Your task to perform on an android device: turn on notifications settings in the gmail app Image 0: 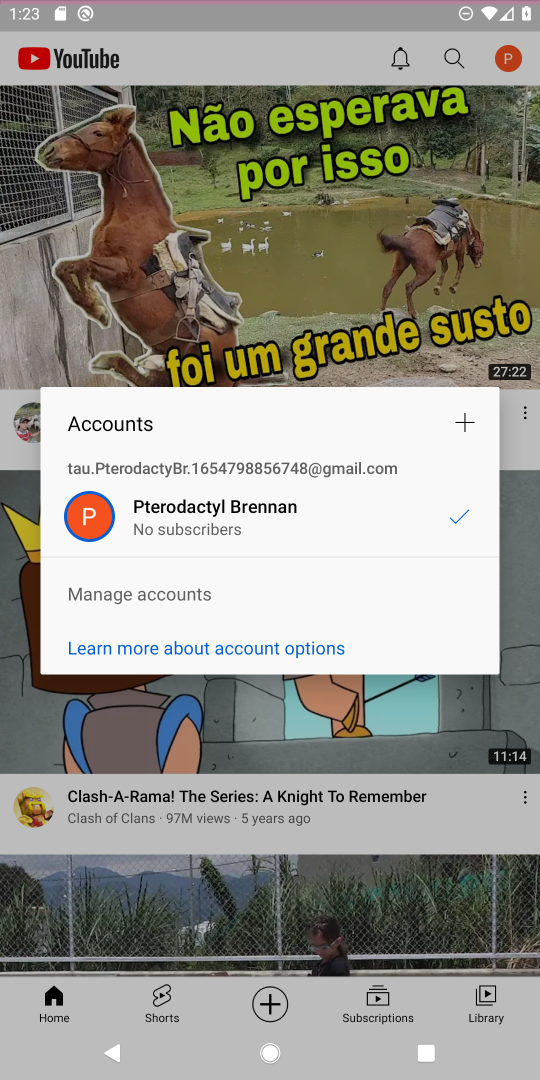
Step 0: press home button
Your task to perform on an android device: turn on notifications settings in the gmail app Image 1: 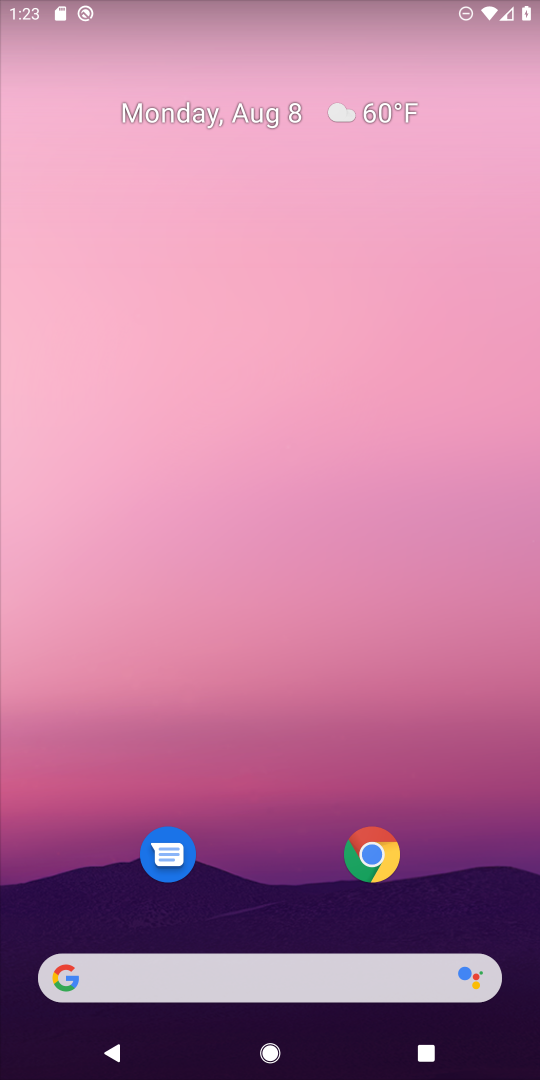
Step 1: drag from (286, 886) to (287, 79)
Your task to perform on an android device: turn on notifications settings in the gmail app Image 2: 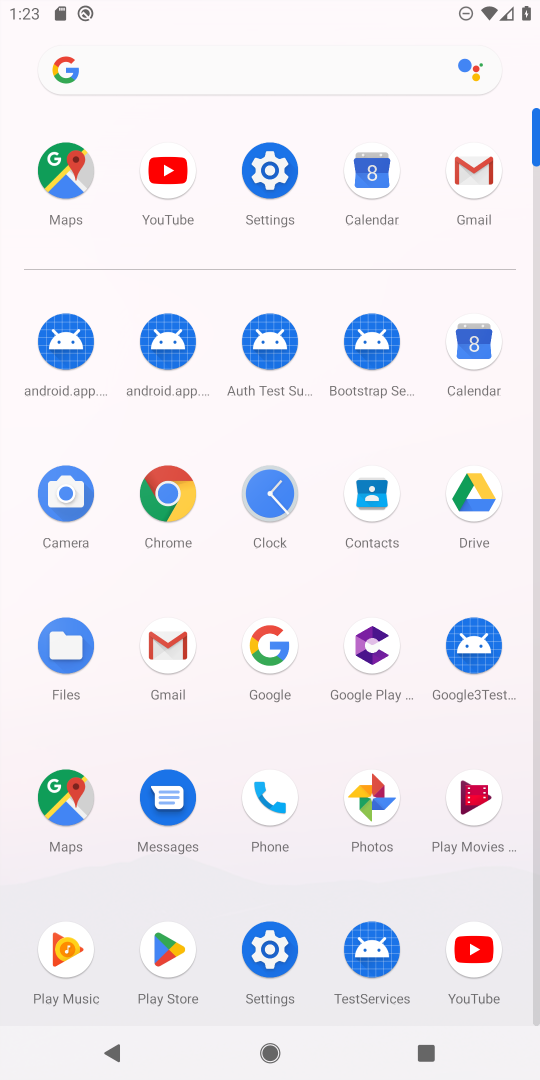
Step 2: click (474, 178)
Your task to perform on an android device: turn on notifications settings in the gmail app Image 3: 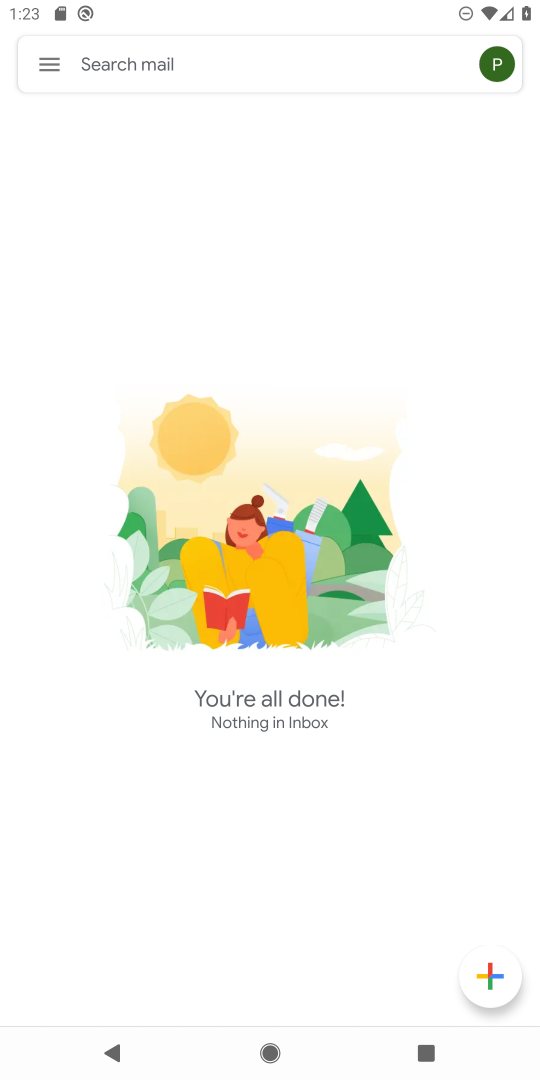
Step 3: click (48, 63)
Your task to perform on an android device: turn on notifications settings in the gmail app Image 4: 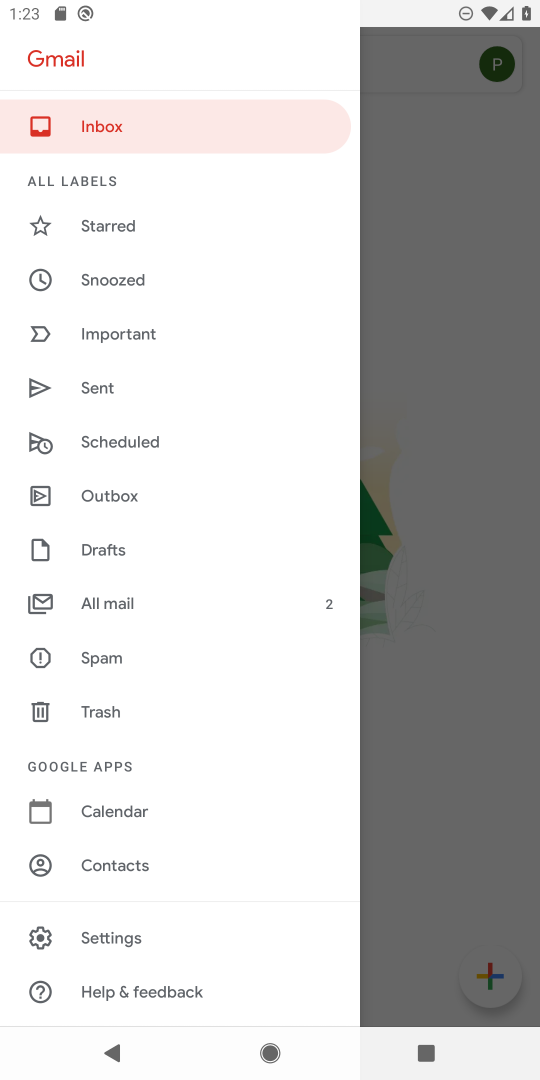
Step 4: click (101, 927)
Your task to perform on an android device: turn on notifications settings in the gmail app Image 5: 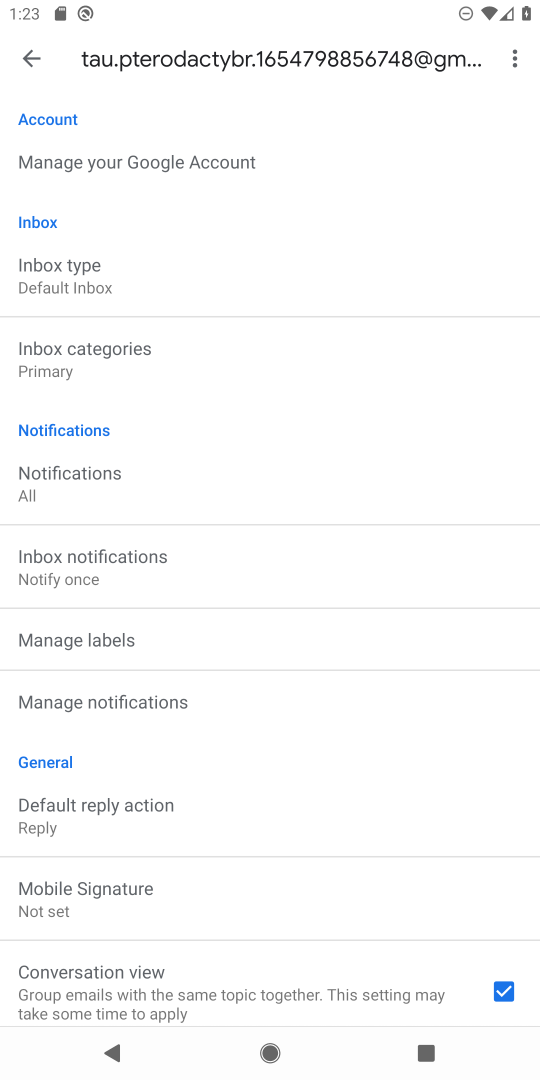
Step 5: click (83, 686)
Your task to perform on an android device: turn on notifications settings in the gmail app Image 6: 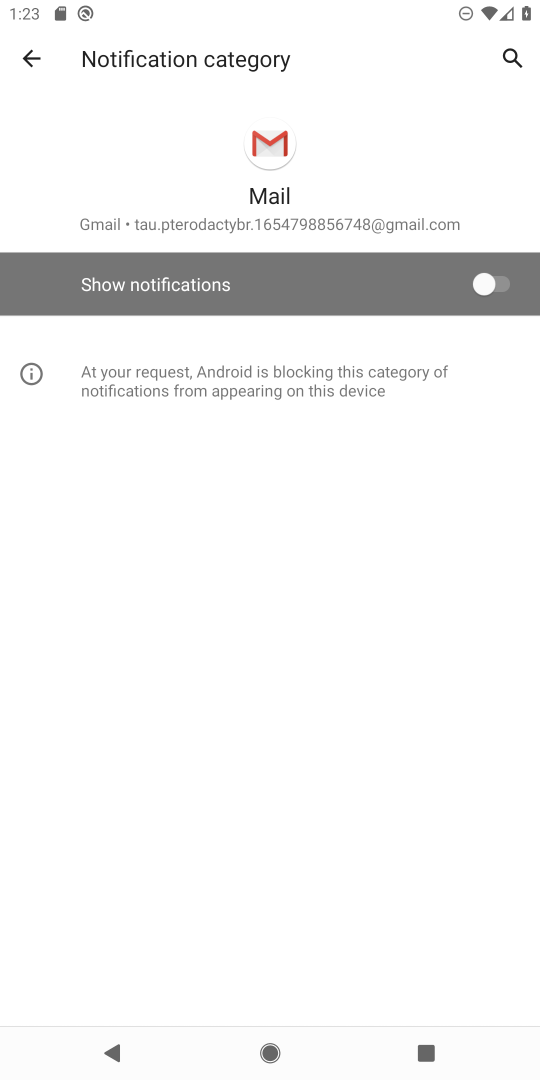
Step 6: click (496, 286)
Your task to perform on an android device: turn on notifications settings in the gmail app Image 7: 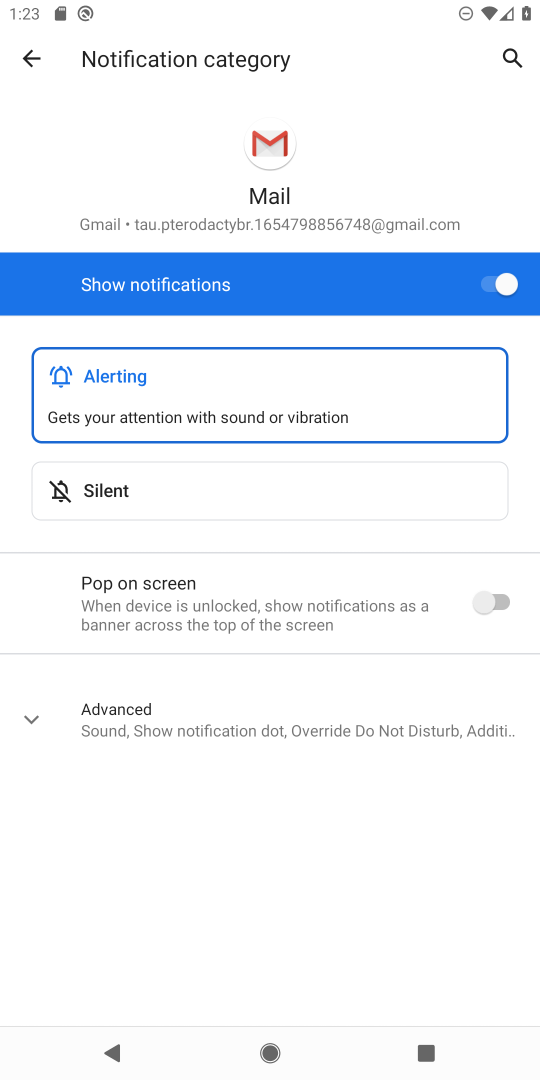
Step 7: task complete